Your task to perform on an android device: Open Amazon Image 0: 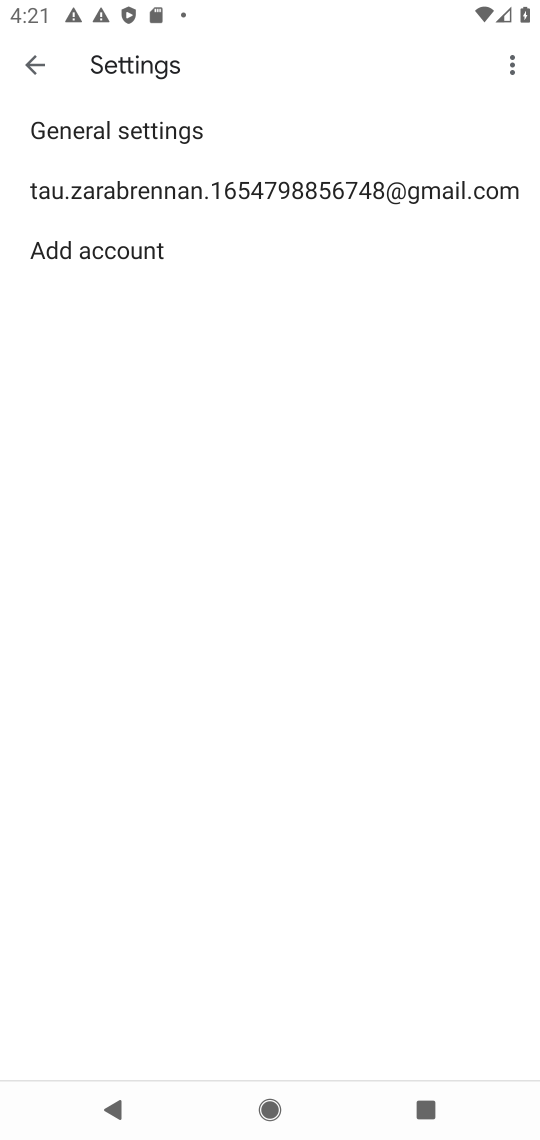
Step 0: press home button
Your task to perform on an android device: Open Amazon Image 1: 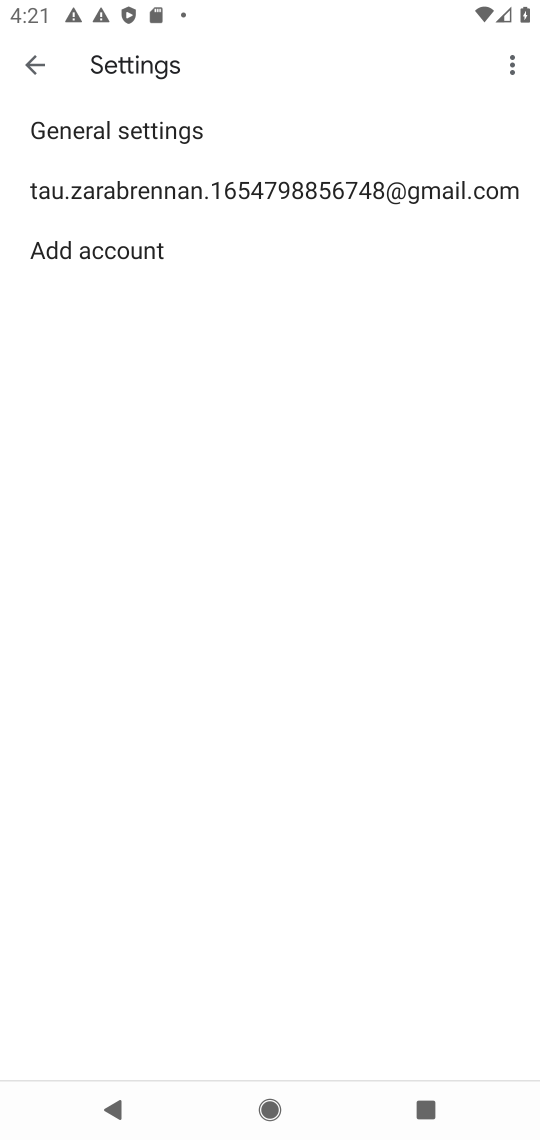
Step 1: press home button
Your task to perform on an android device: Open Amazon Image 2: 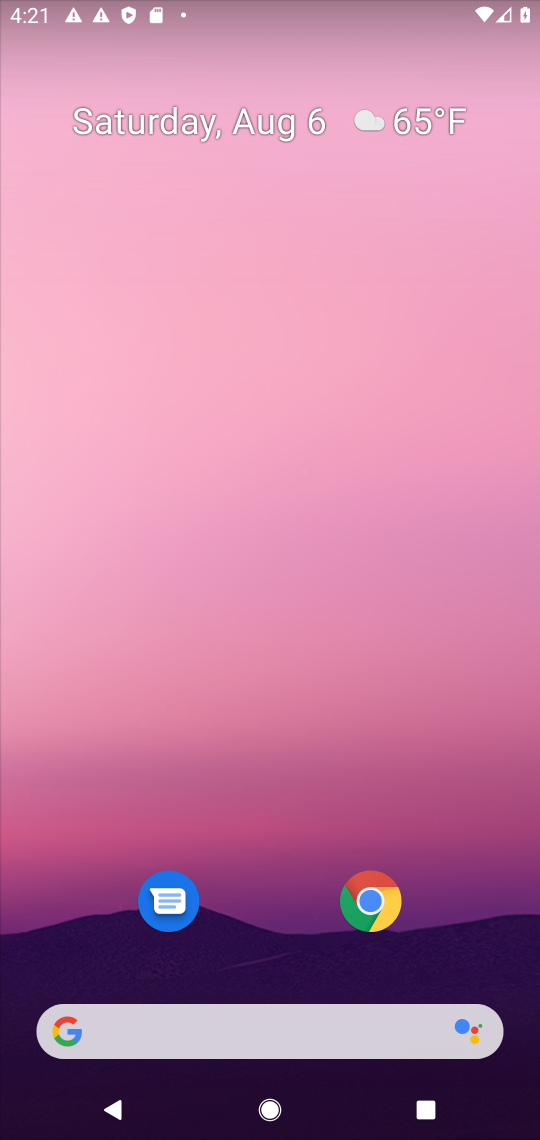
Step 2: drag from (278, 851) to (467, 48)
Your task to perform on an android device: Open Amazon Image 3: 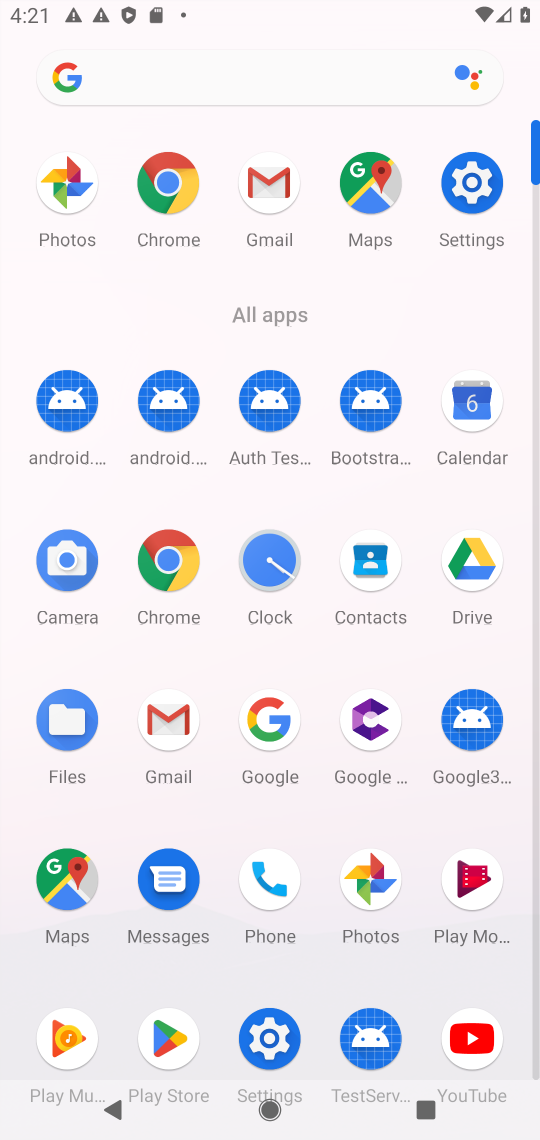
Step 3: click (176, 198)
Your task to perform on an android device: Open Amazon Image 4: 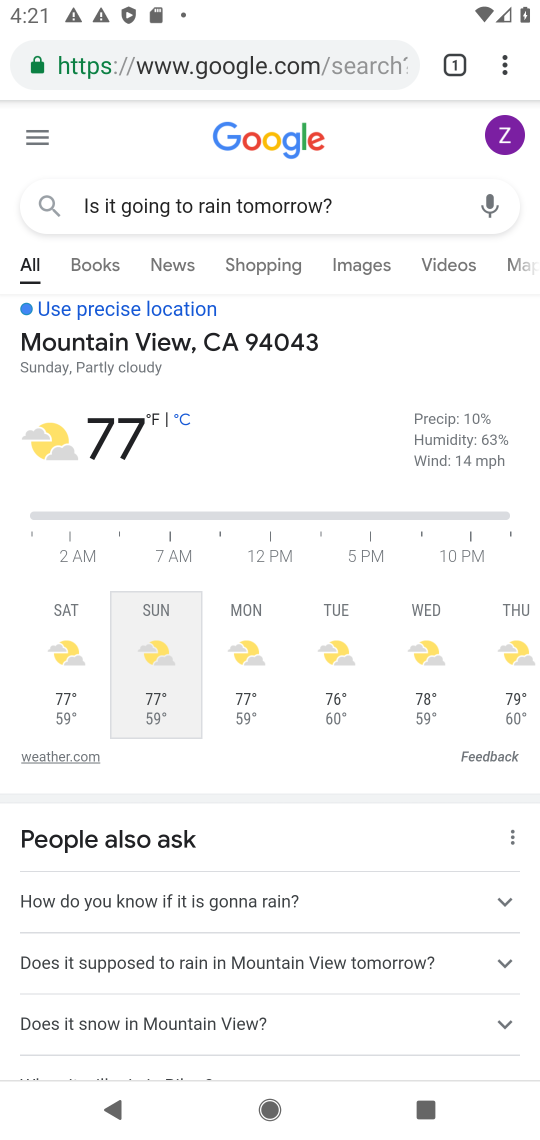
Step 4: click (219, 53)
Your task to perform on an android device: Open Amazon Image 5: 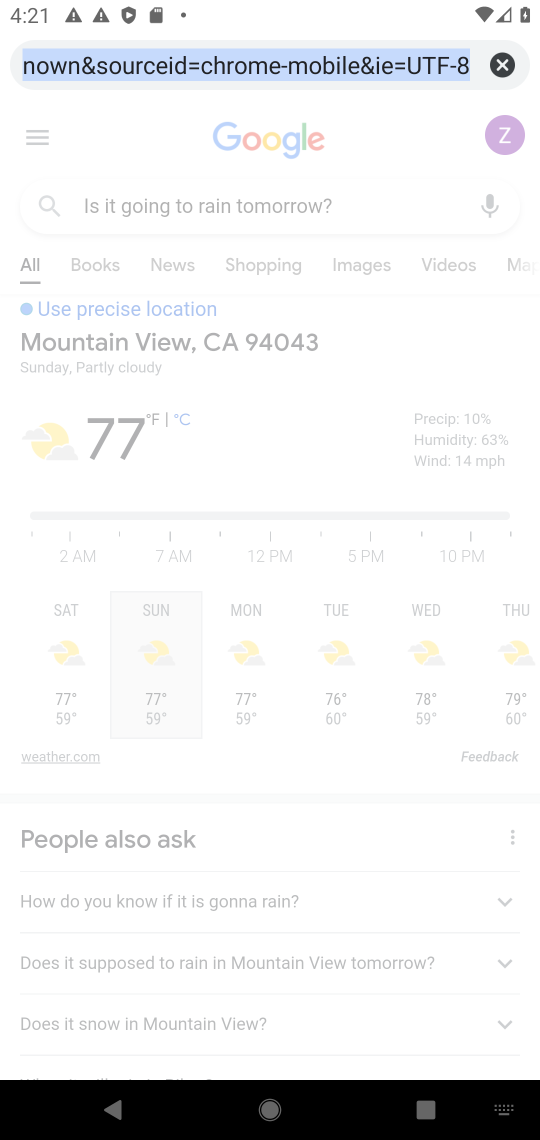
Step 5: type "Amazon"
Your task to perform on an android device: Open Amazon Image 6: 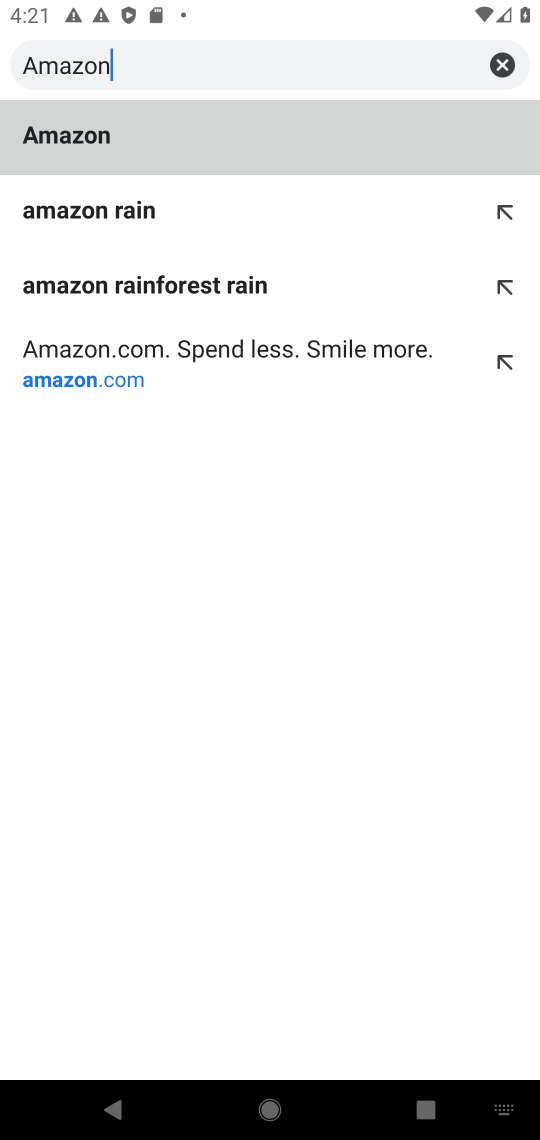
Step 6: click (169, 355)
Your task to perform on an android device: Open Amazon Image 7: 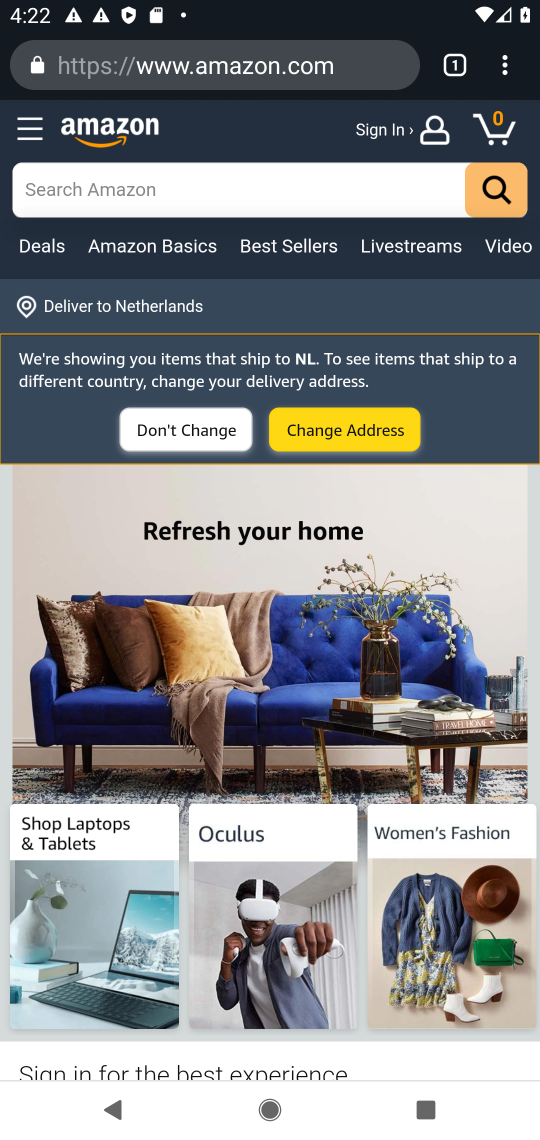
Step 7: task complete